Your task to perform on an android device: Search for the new Jordans on Nike.com Image 0: 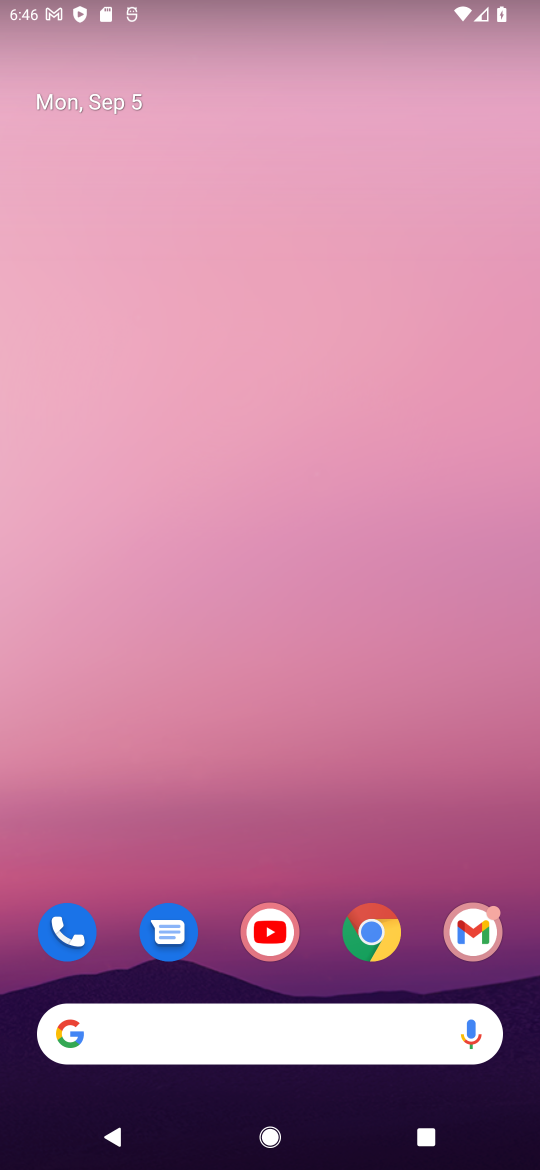
Step 0: drag from (326, 996) to (312, 50)
Your task to perform on an android device: Search for the new Jordans on Nike.com Image 1: 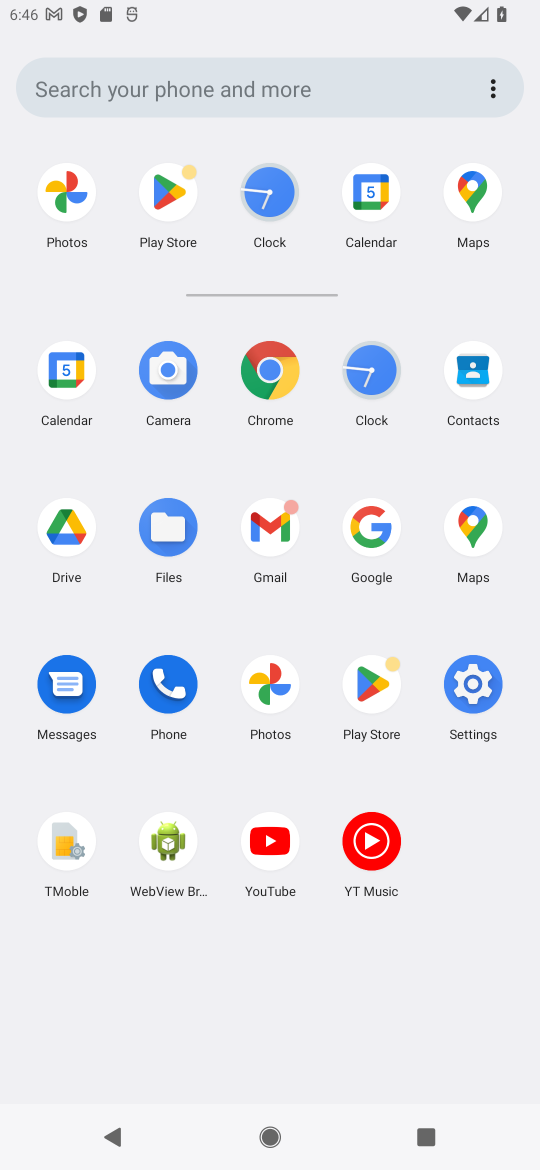
Step 1: click (375, 521)
Your task to perform on an android device: Search for the new Jordans on Nike.com Image 2: 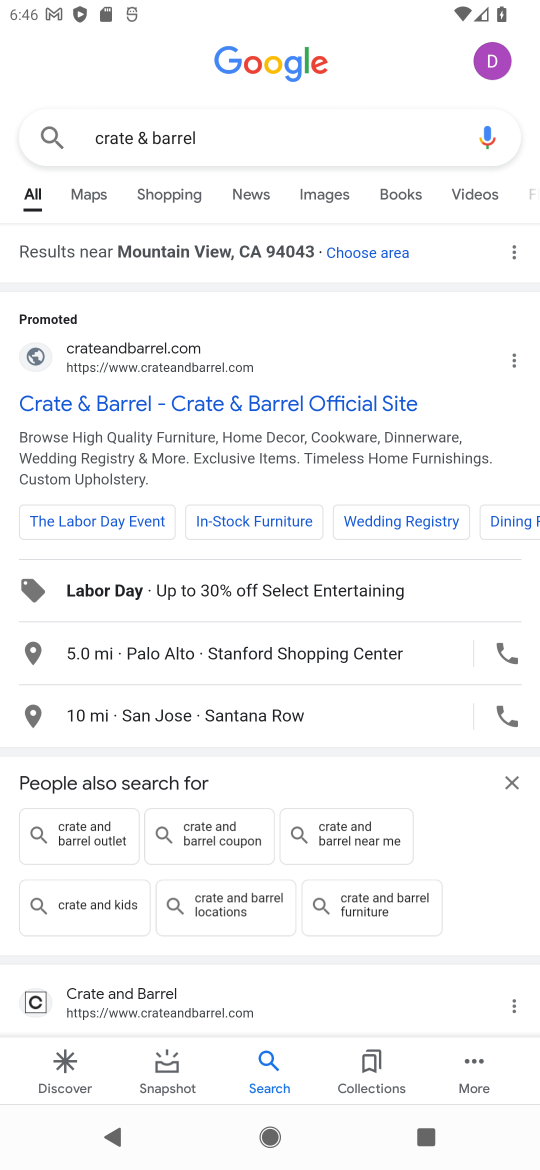
Step 2: click (255, 145)
Your task to perform on an android device: Search for the new Jordans on Nike.com Image 3: 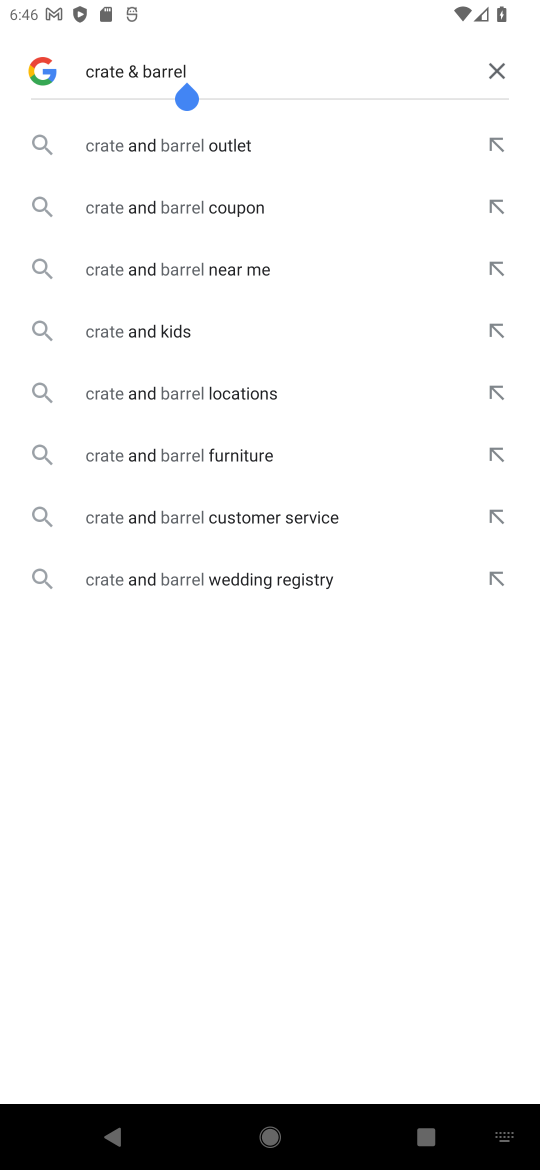
Step 3: click (496, 67)
Your task to perform on an android device: Search for the new Jordans on Nike.com Image 4: 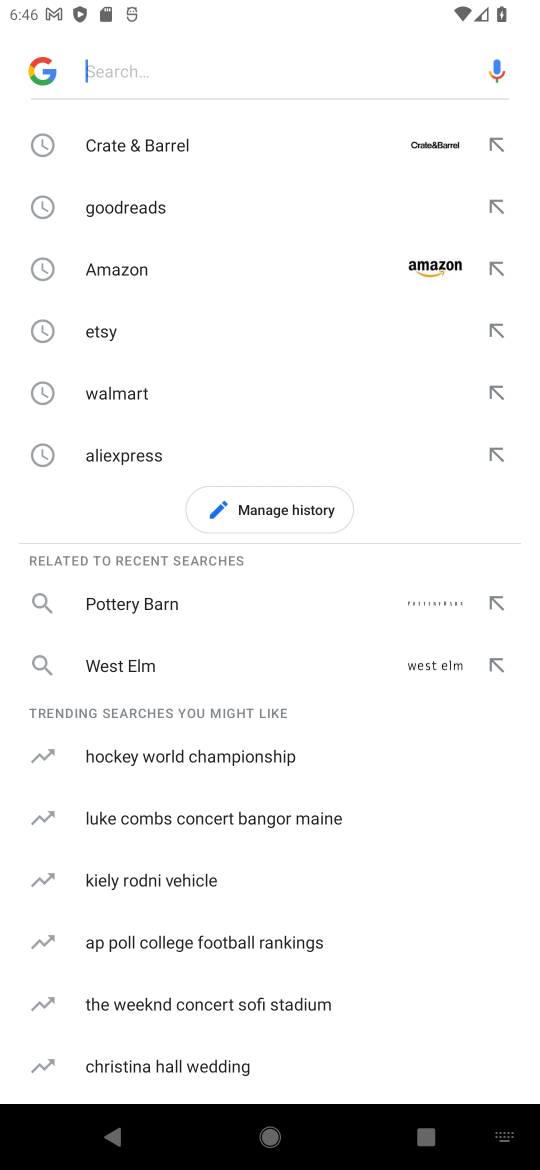
Step 4: type " Nike.com"
Your task to perform on an android device: Search for the new Jordans on Nike.com Image 5: 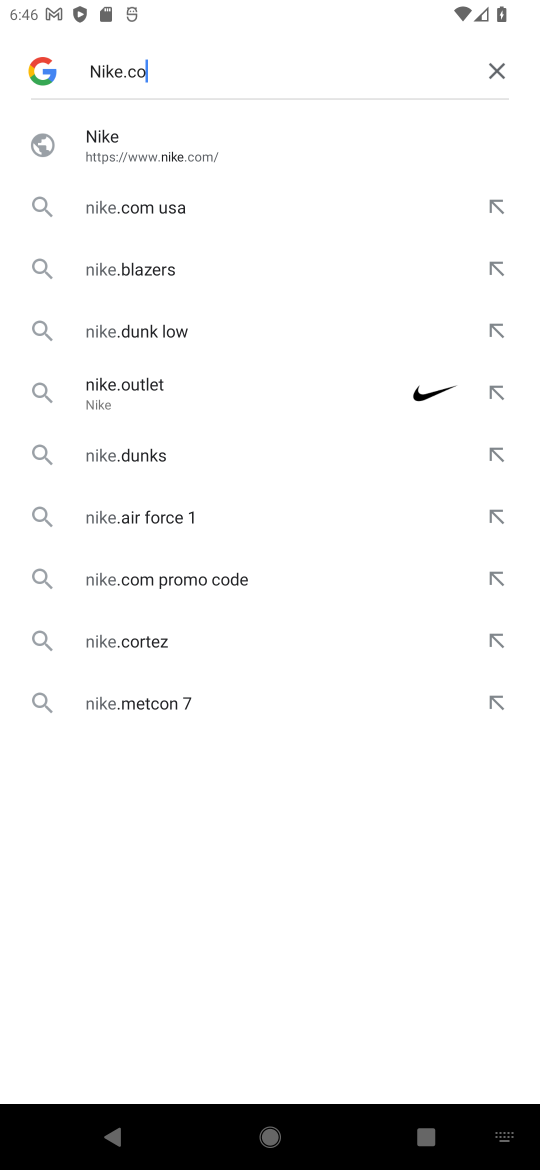
Step 5: type ""
Your task to perform on an android device: Search for the new Jordans on Nike.com Image 6: 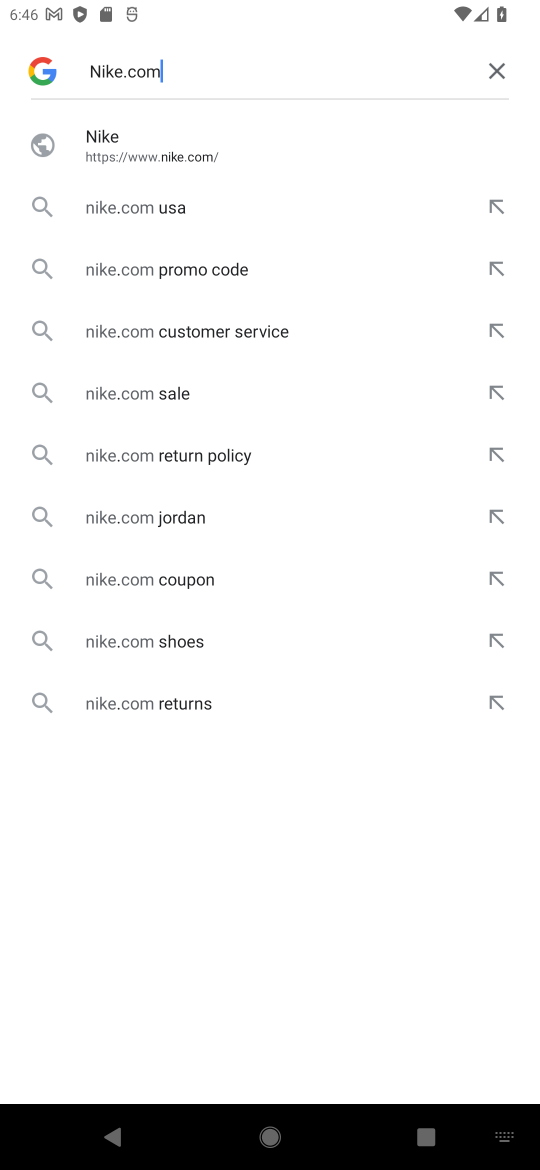
Step 6: click (113, 138)
Your task to perform on an android device: Search for the new Jordans on Nike.com Image 7: 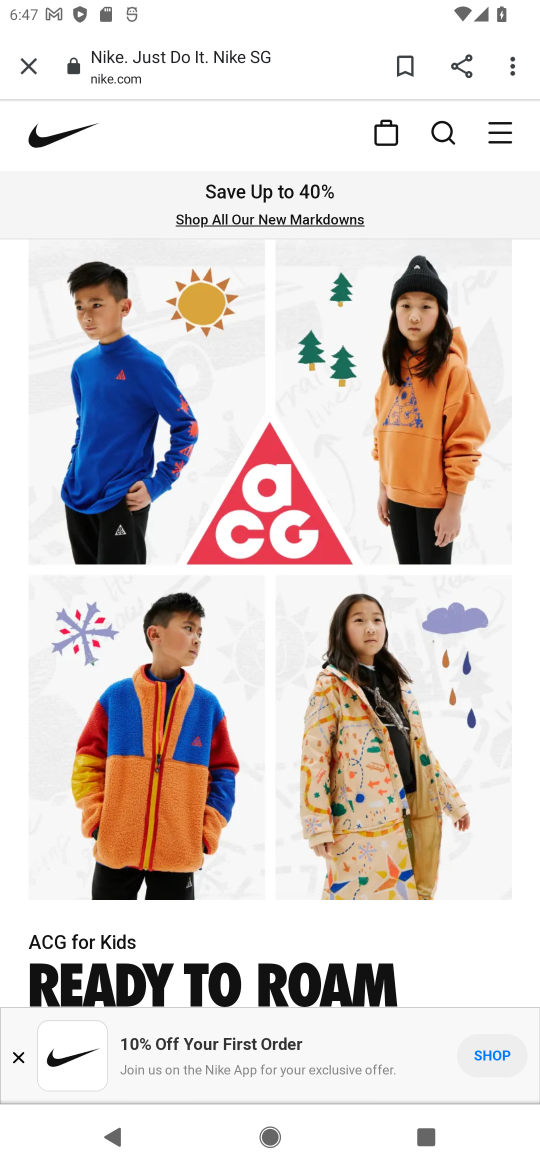
Step 7: click (438, 128)
Your task to perform on an android device: Search for the new Jordans on Nike.com Image 8: 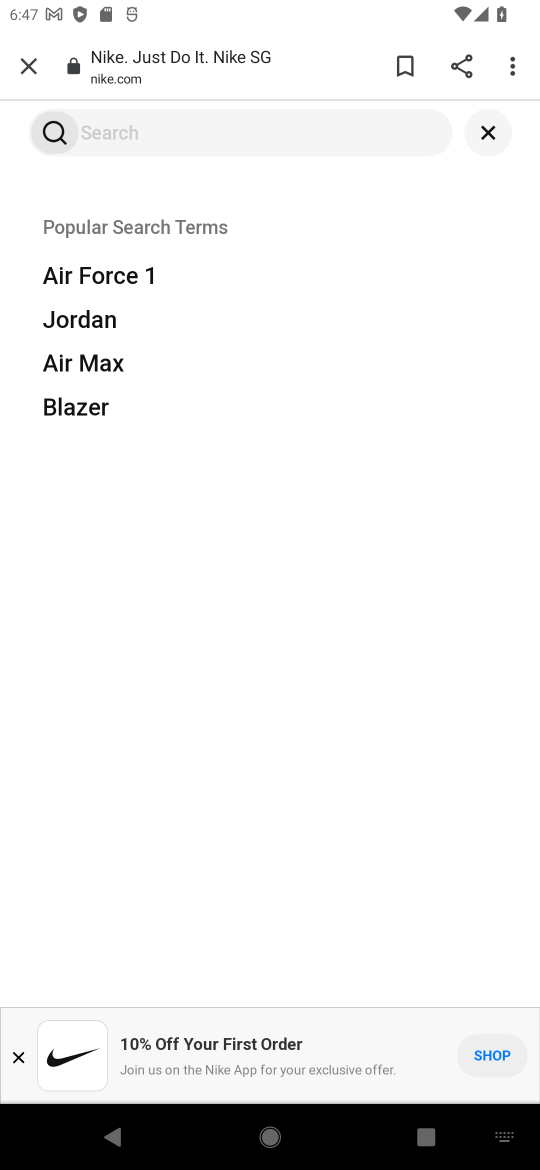
Step 8: click (57, 317)
Your task to perform on an android device: Search for the new Jordans on Nike.com Image 9: 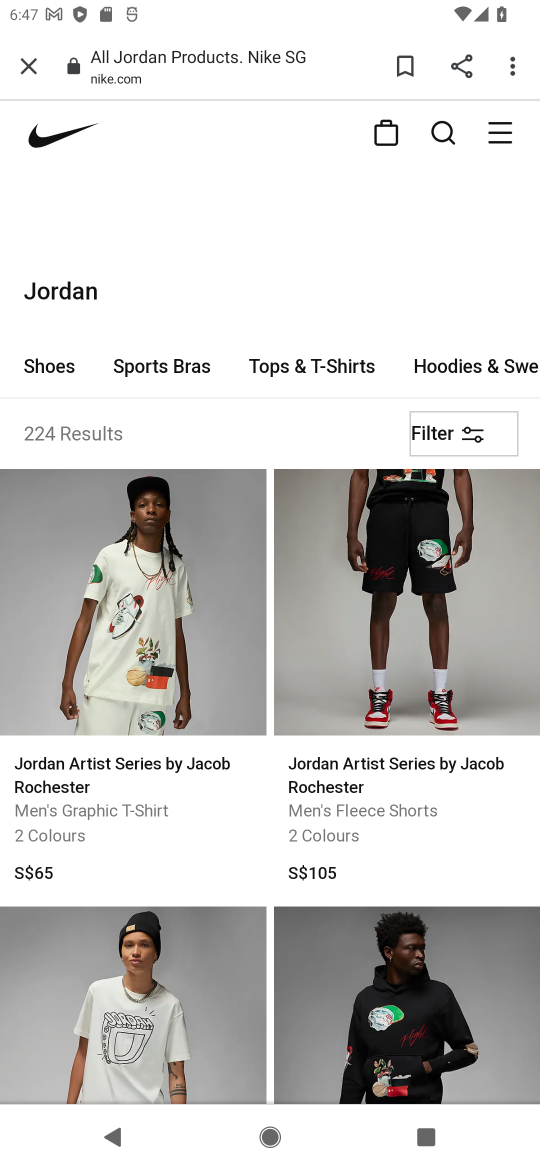
Step 9: task complete